Your task to perform on an android device: check data usage Image 0: 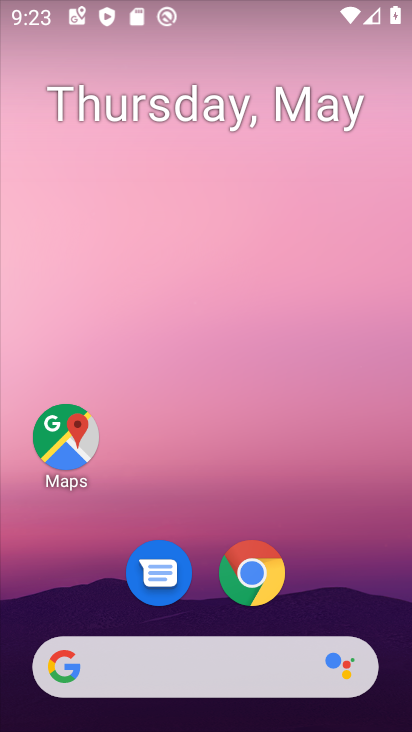
Step 0: drag from (312, 565) to (371, 113)
Your task to perform on an android device: check data usage Image 1: 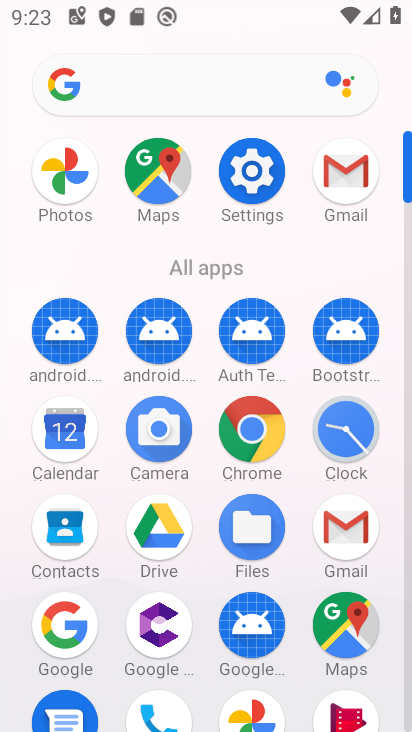
Step 1: click (252, 198)
Your task to perform on an android device: check data usage Image 2: 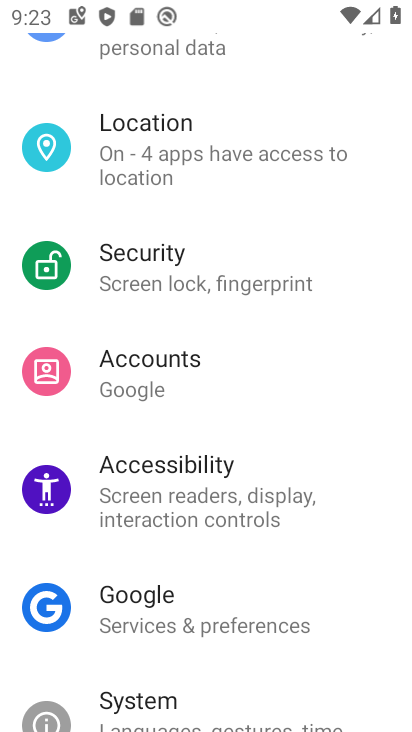
Step 2: drag from (233, 327) to (256, 595)
Your task to perform on an android device: check data usage Image 3: 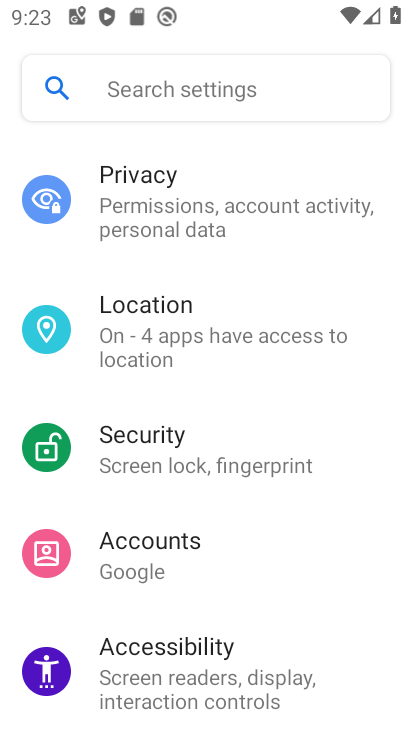
Step 3: drag from (240, 202) to (230, 610)
Your task to perform on an android device: check data usage Image 4: 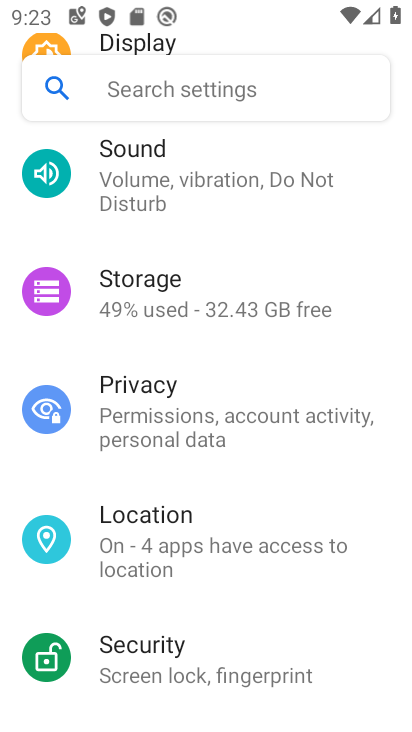
Step 4: drag from (222, 331) to (239, 607)
Your task to perform on an android device: check data usage Image 5: 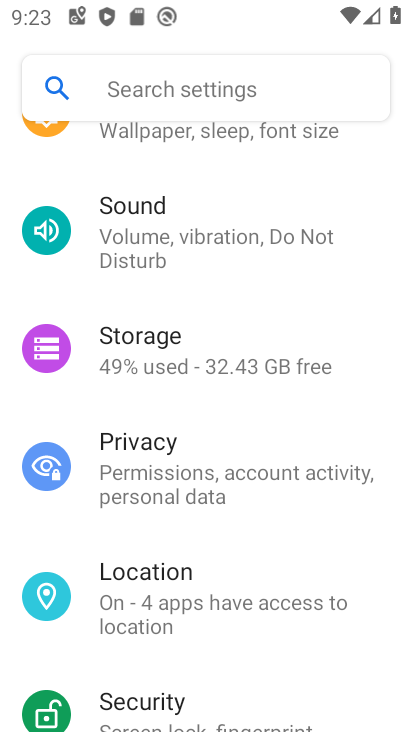
Step 5: drag from (271, 384) to (268, 634)
Your task to perform on an android device: check data usage Image 6: 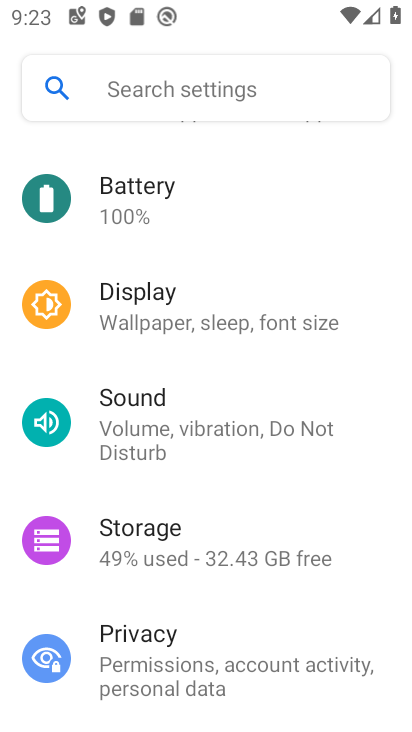
Step 6: drag from (268, 327) to (274, 633)
Your task to perform on an android device: check data usage Image 7: 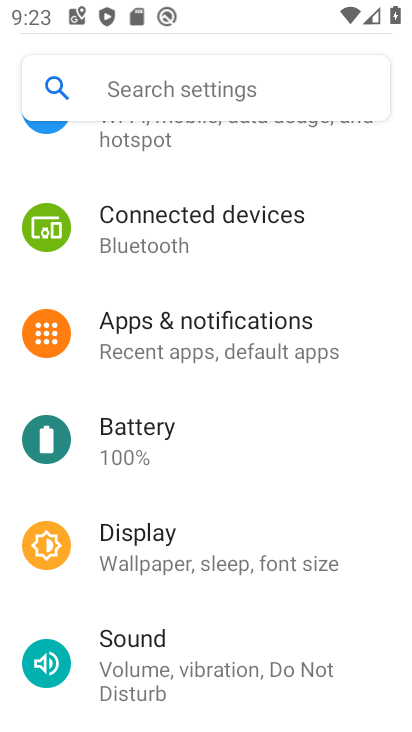
Step 7: drag from (239, 255) to (245, 643)
Your task to perform on an android device: check data usage Image 8: 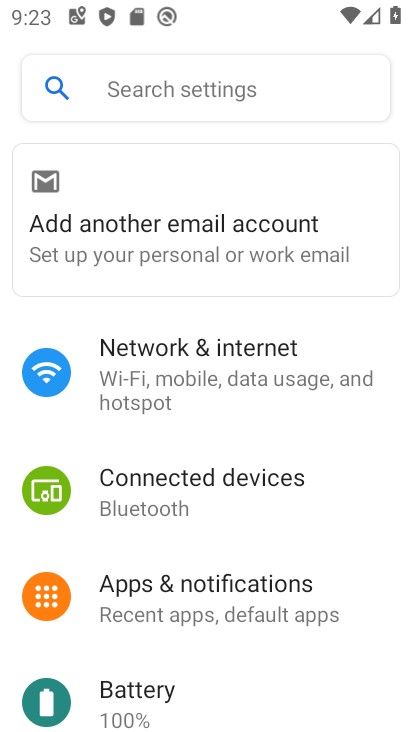
Step 8: click (228, 382)
Your task to perform on an android device: check data usage Image 9: 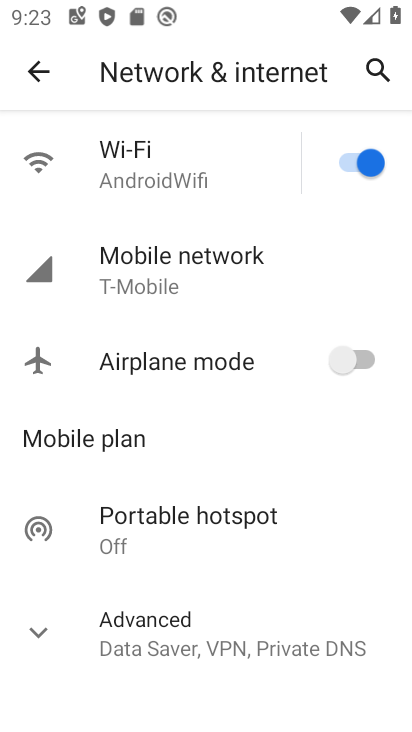
Step 9: click (206, 291)
Your task to perform on an android device: check data usage Image 10: 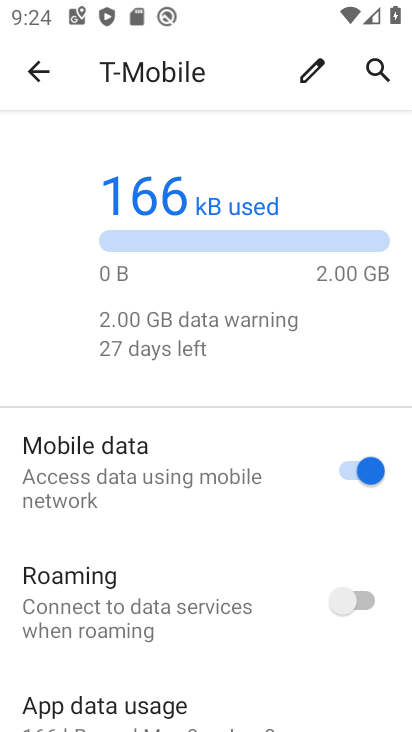
Step 10: drag from (198, 641) to (175, 273)
Your task to perform on an android device: check data usage Image 11: 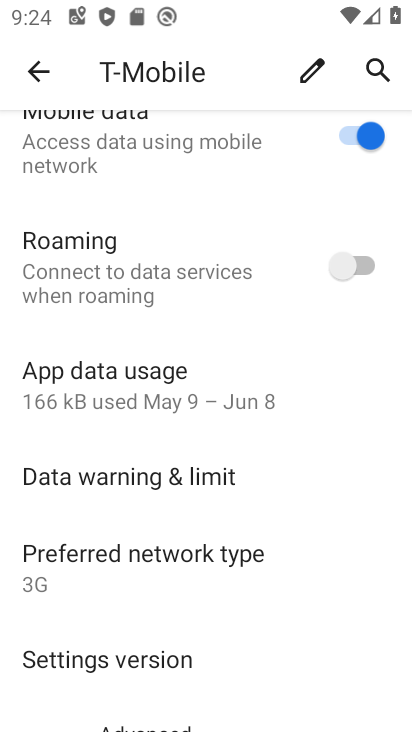
Step 11: click (169, 384)
Your task to perform on an android device: check data usage Image 12: 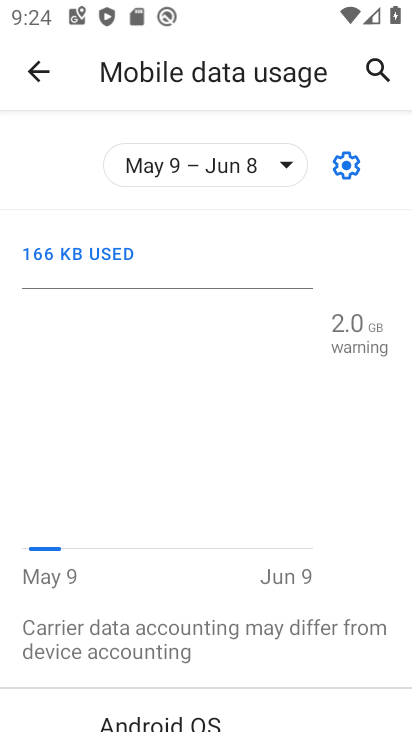
Step 12: task complete